Your task to perform on an android device: How much does a 3 bedroom apartment rent for in Denver? Image 0: 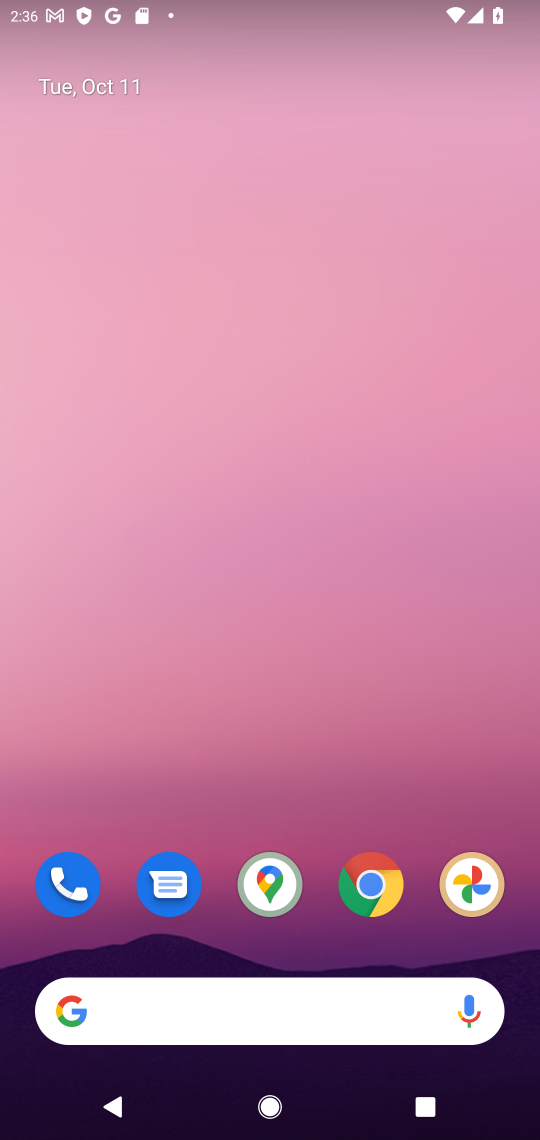
Step 0: click (370, 889)
Your task to perform on an android device: How much does a 3 bedroom apartment rent for in Denver? Image 1: 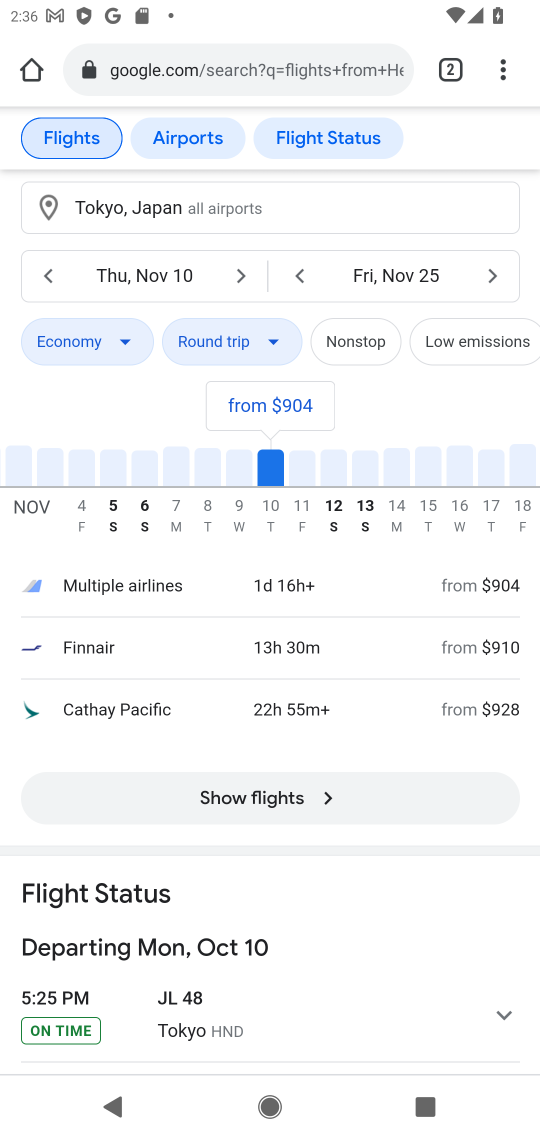
Step 1: click (319, 70)
Your task to perform on an android device: How much does a 3 bedroom apartment rent for in Denver? Image 2: 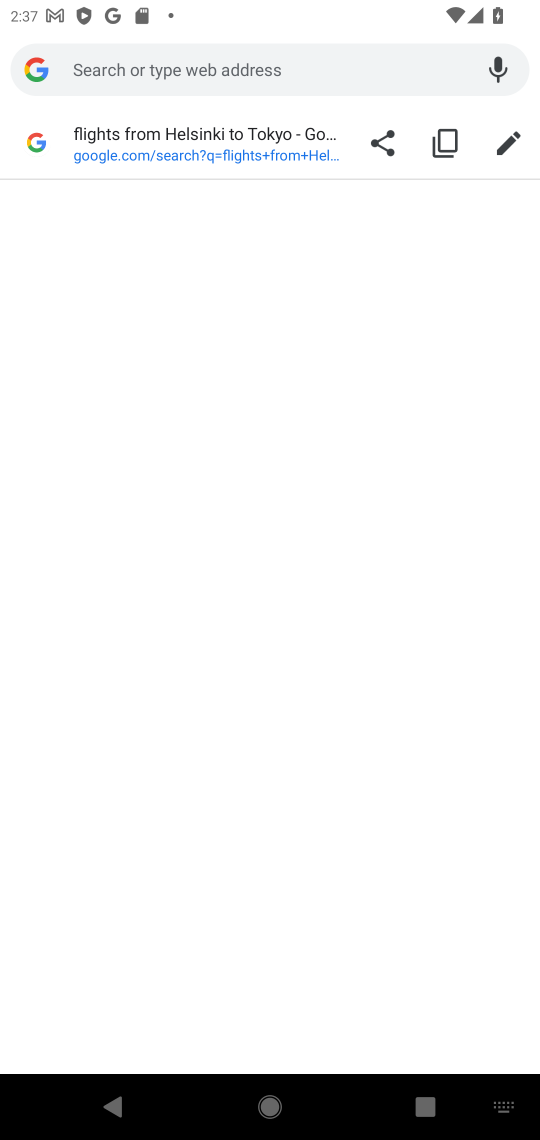
Step 2: type "How much does a 3 bedroom apartment rent for in Denver"
Your task to perform on an android device: How much does a 3 bedroom apartment rent for in Denver? Image 3: 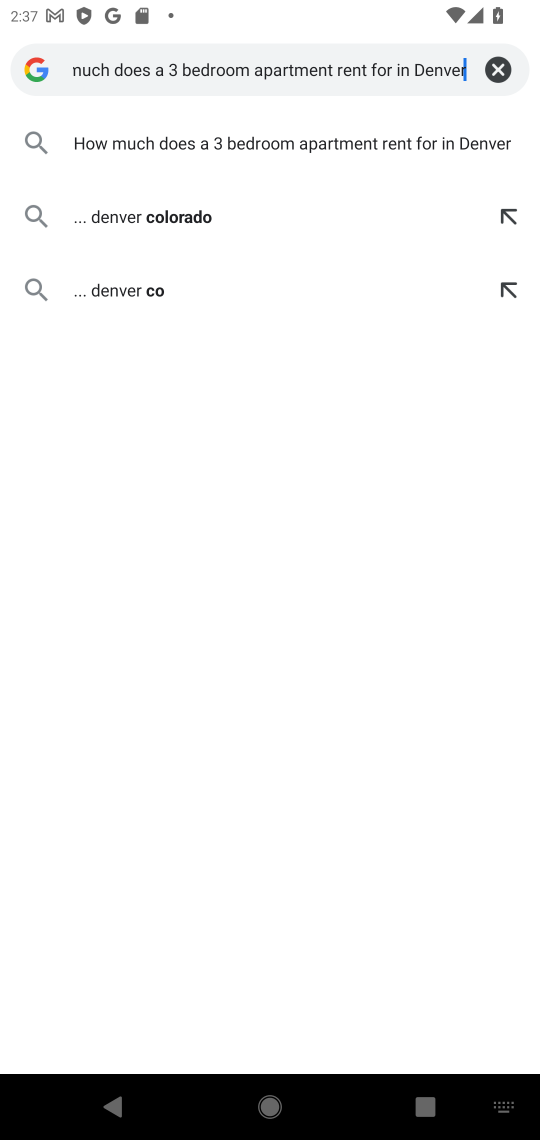
Step 3: click (209, 139)
Your task to perform on an android device: How much does a 3 bedroom apartment rent for in Denver? Image 4: 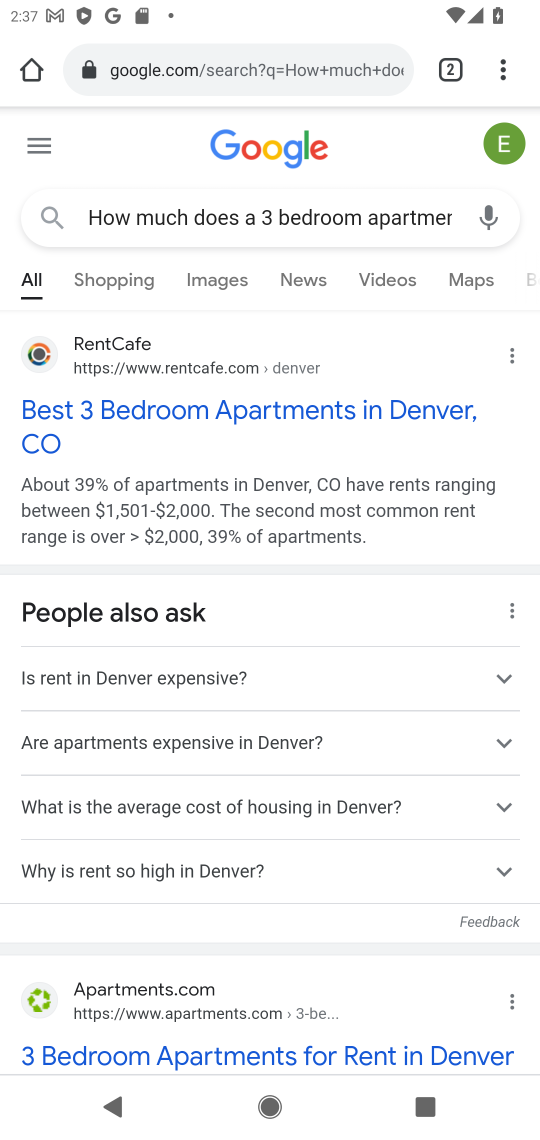
Step 4: click (150, 403)
Your task to perform on an android device: How much does a 3 bedroom apartment rent for in Denver? Image 5: 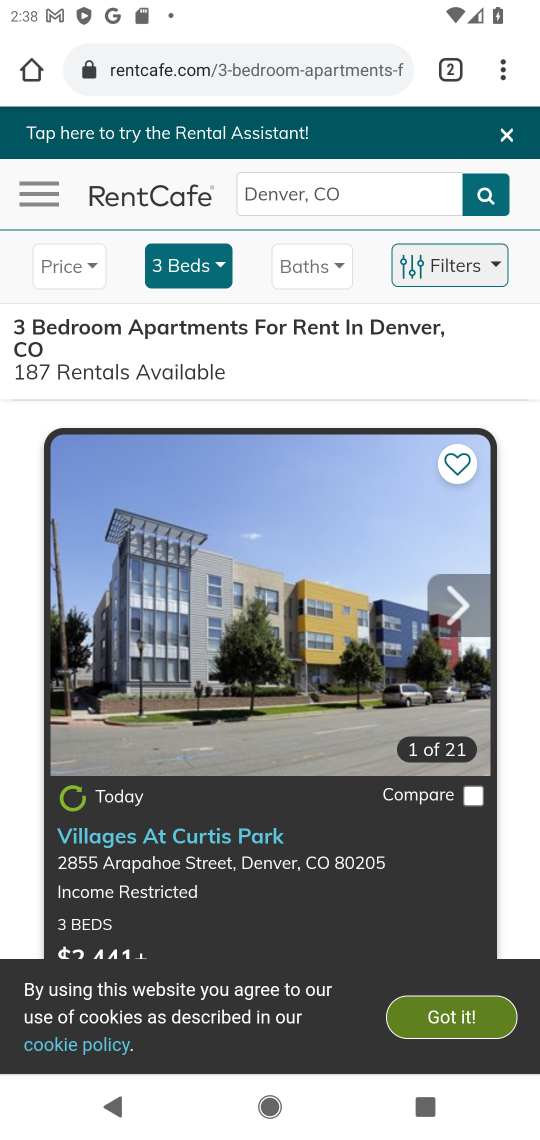
Step 5: task complete